Your task to perform on an android device: change timer sound Image 0: 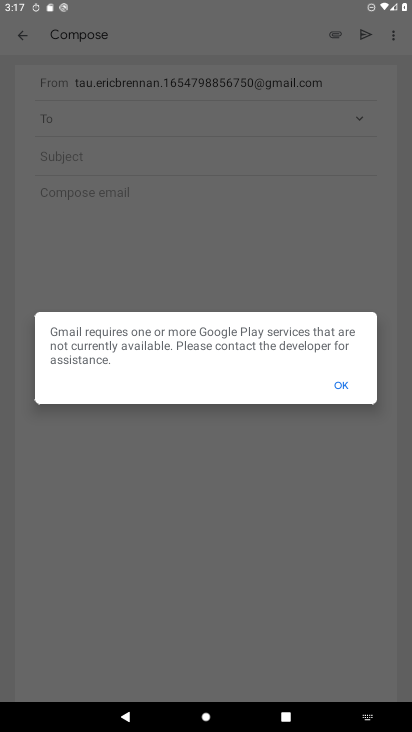
Step 0: press home button
Your task to perform on an android device: change timer sound Image 1: 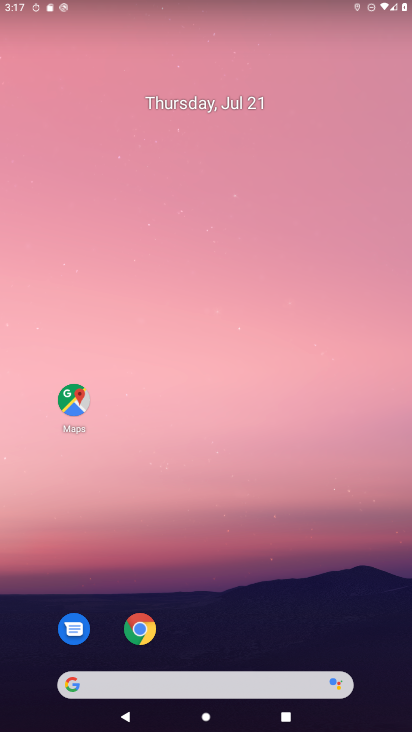
Step 1: drag from (233, 236) to (214, 2)
Your task to perform on an android device: change timer sound Image 2: 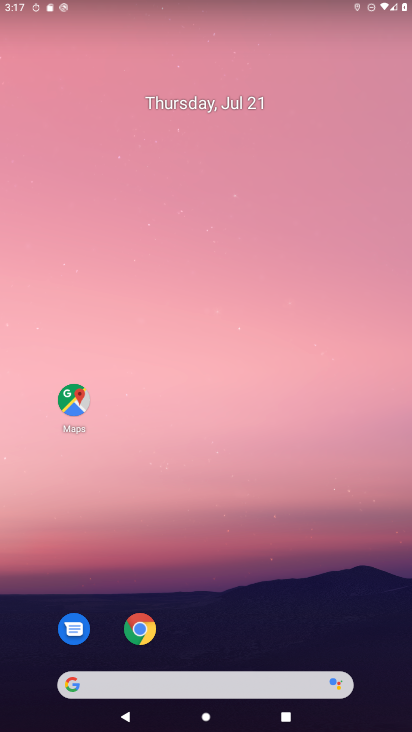
Step 2: drag from (232, 586) to (188, 4)
Your task to perform on an android device: change timer sound Image 3: 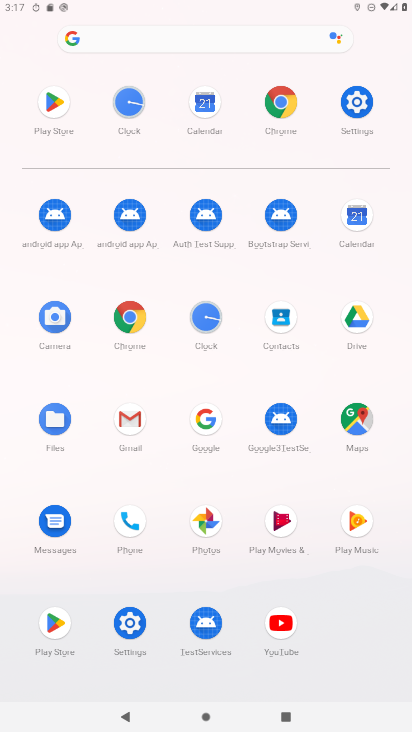
Step 3: click (208, 339)
Your task to perform on an android device: change timer sound Image 4: 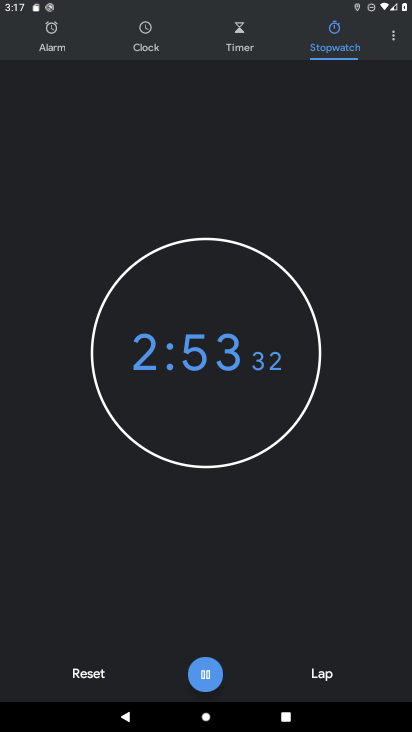
Step 4: click (96, 683)
Your task to perform on an android device: change timer sound Image 5: 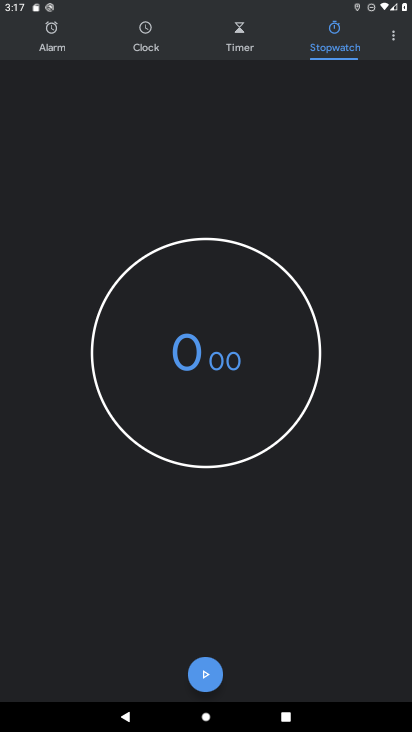
Step 5: click (396, 33)
Your task to perform on an android device: change timer sound Image 6: 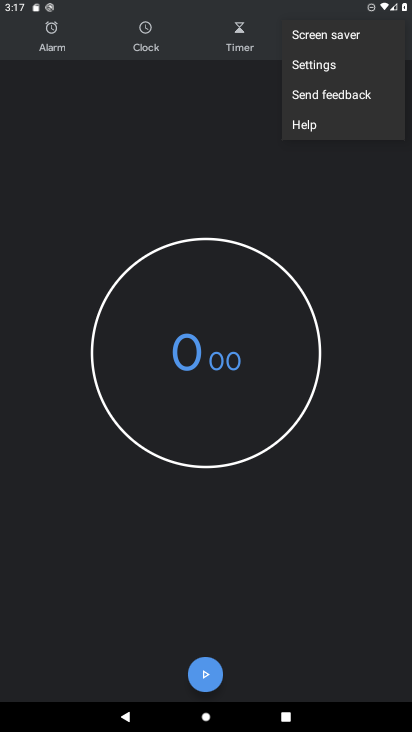
Step 6: click (318, 69)
Your task to perform on an android device: change timer sound Image 7: 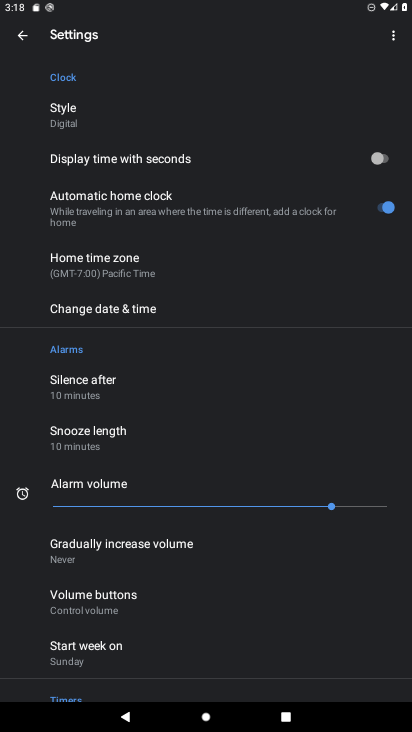
Step 7: drag from (153, 578) to (153, 314)
Your task to perform on an android device: change timer sound Image 8: 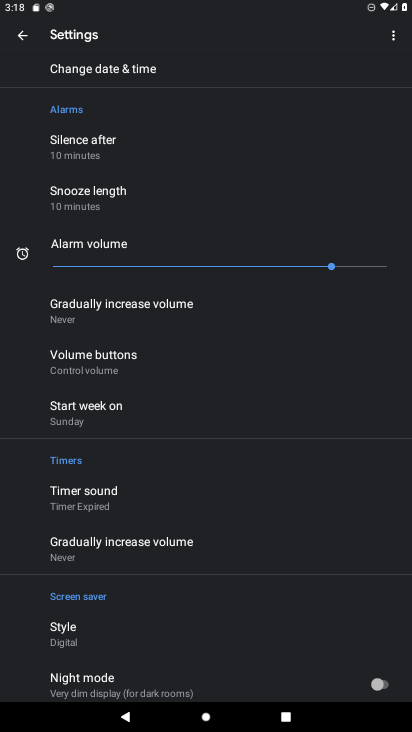
Step 8: click (113, 503)
Your task to perform on an android device: change timer sound Image 9: 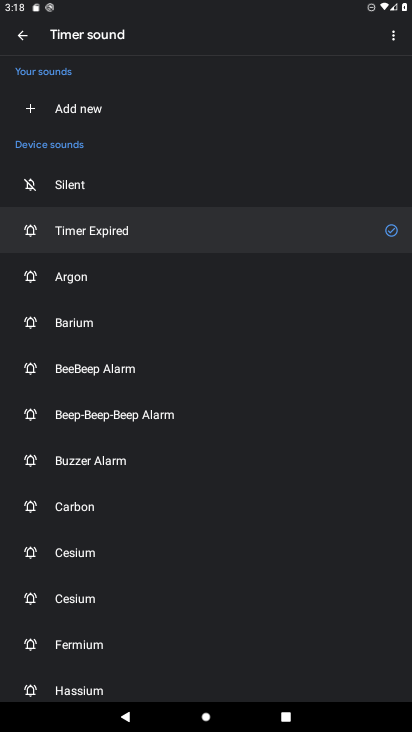
Step 9: click (69, 275)
Your task to perform on an android device: change timer sound Image 10: 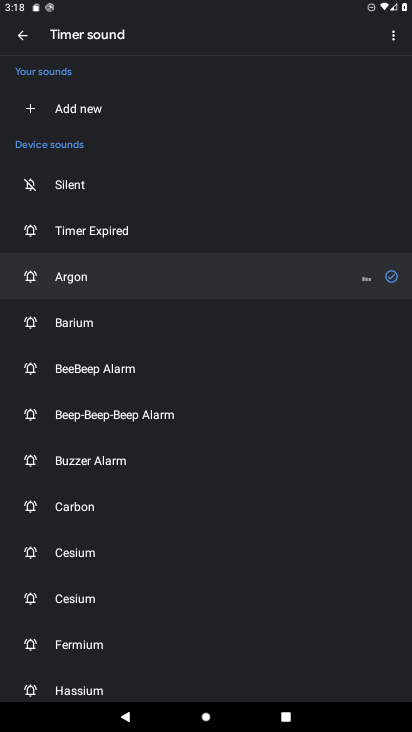
Step 10: task complete